Your task to perform on an android device: turn off data saver in the chrome app Image 0: 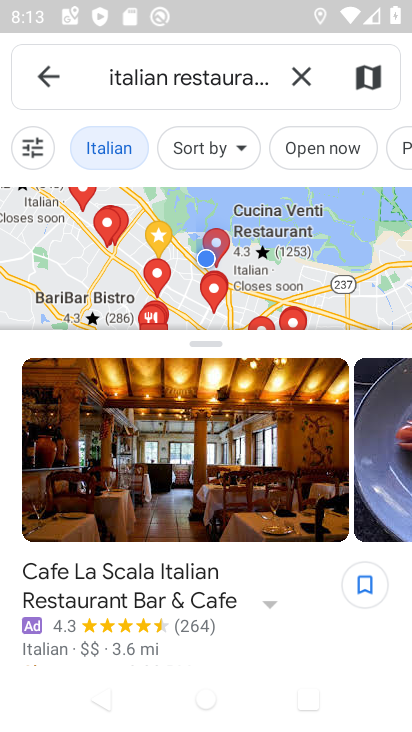
Step 0: press home button
Your task to perform on an android device: turn off data saver in the chrome app Image 1: 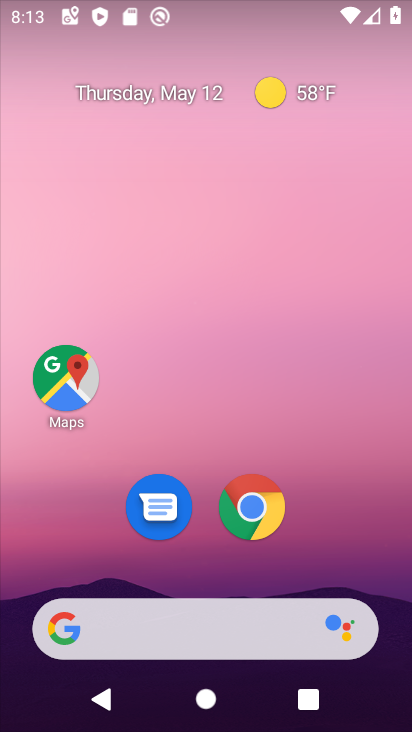
Step 1: click (242, 517)
Your task to perform on an android device: turn off data saver in the chrome app Image 2: 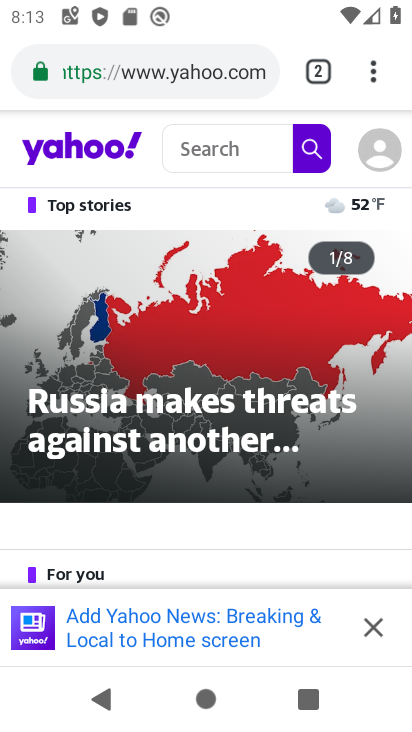
Step 2: drag from (374, 73) to (151, 504)
Your task to perform on an android device: turn off data saver in the chrome app Image 3: 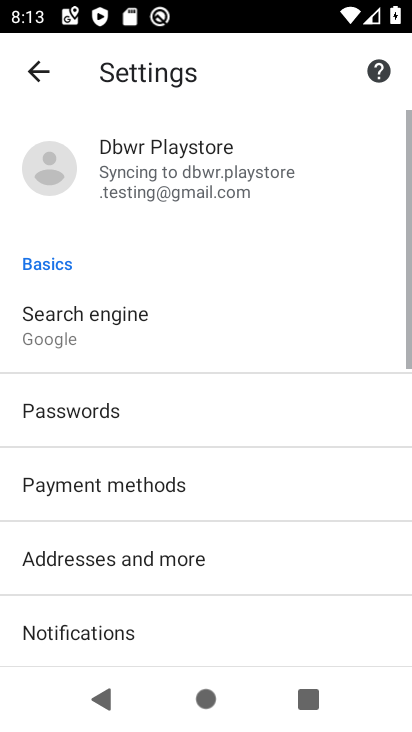
Step 3: drag from (168, 564) to (213, 284)
Your task to perform on an android device: turn off data saver in the chrome app Image 4: 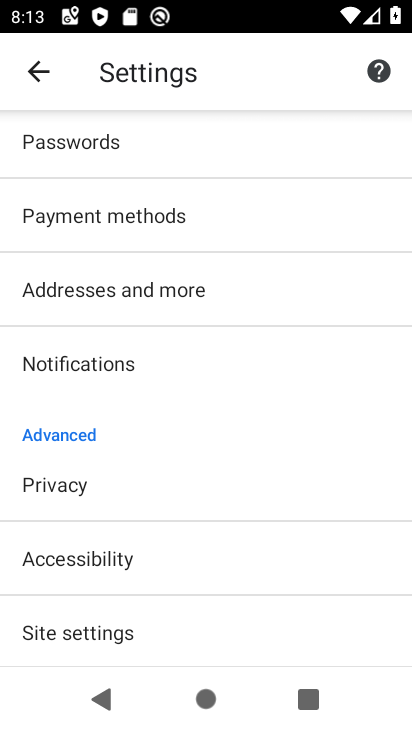
Step 4: drag from (123, 609) to (168, 379)
Your task to perform on an android device: turn off data saver in the chrome app Image 5: 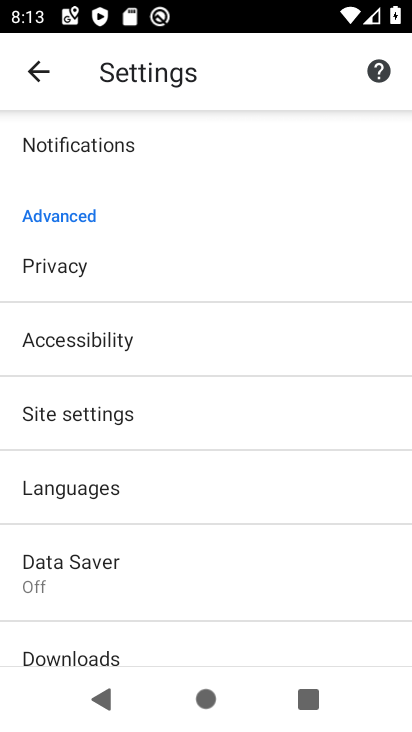
Step 5: click (82, 551)
Your task to perform on an android device: turn off data saver in the chrome app Image 6: 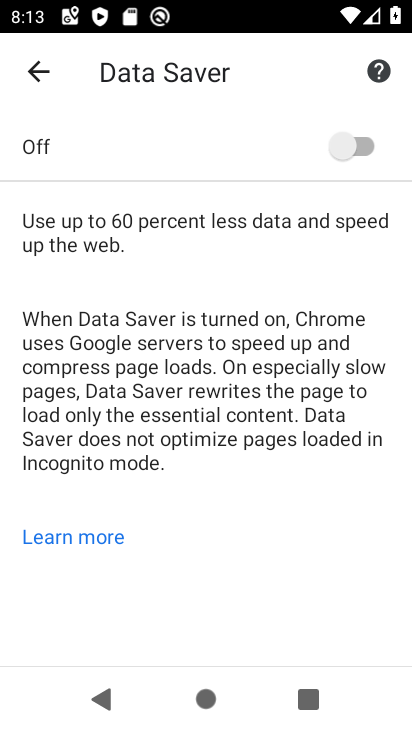
Step 6: click (379, 144)
Your task to perform on an android device: turn off data saver in the chrome app Image 7: 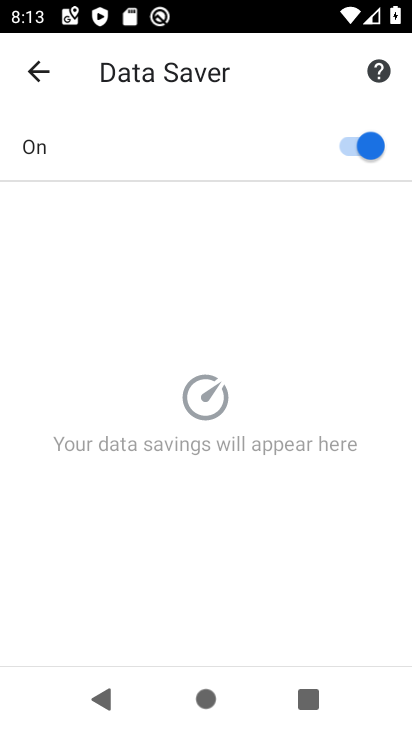
Step 7: click (339, 143)
Your task to perform on an android device: turn off data saver in the chrome app Image 8: 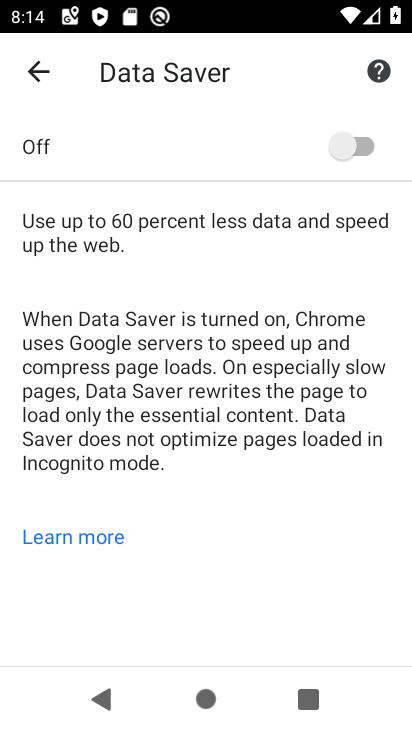
Step 8: task complete